Your task to perform on an android device: turn notification dots on Image 0: 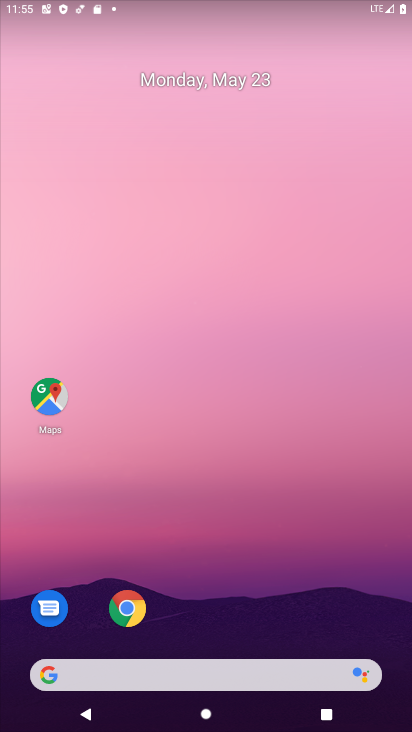
Step 0: press home button
Your task to perform on an android device: turn notification dots on Image 1: 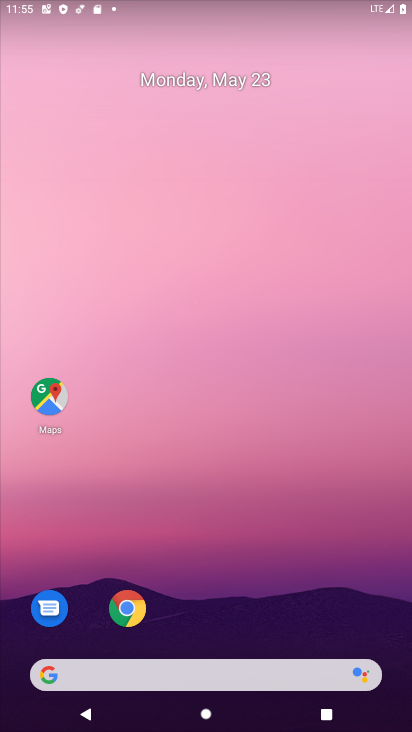
Step 1: drag from (215, 642) to (207, 0)
Your task to perform on an android device: turn notification dots on Image 2: 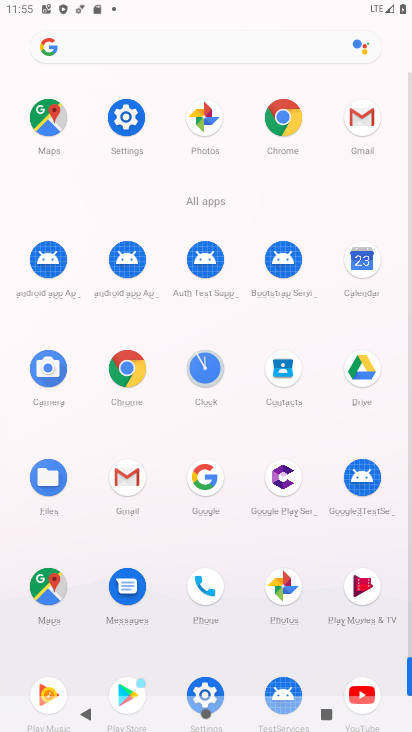
Step 2: click (121, 109)
Your task to perform on an android device: turn notification dots on Image 3: 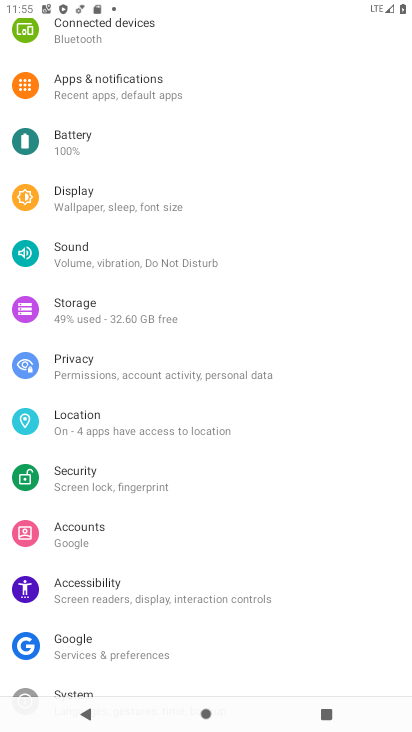
Step 3: click (178, 75)
Your task to perform on an android device: turn notification dots on Image 4: 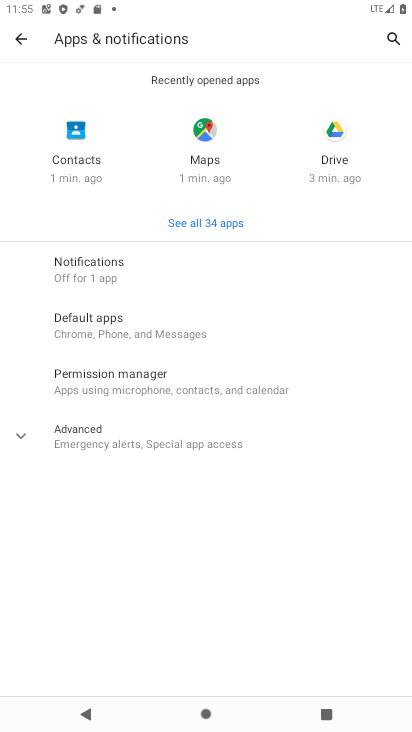
Step 4: click (138, 267)
Your task to perform on an android device: turn notification dots on Image 5: 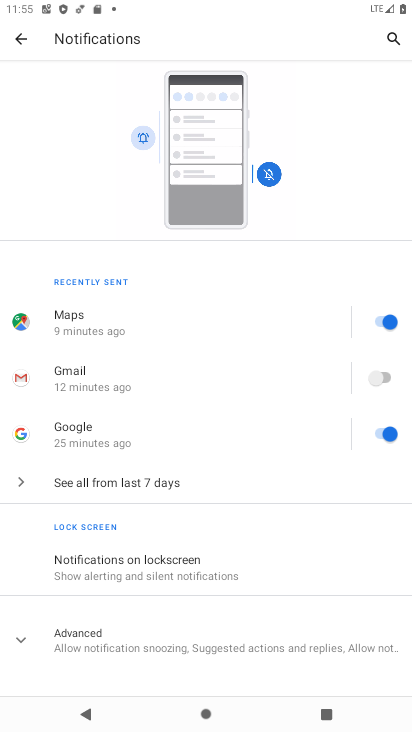
Step 5: click (46, 635)
Your task to perform on an android device: turn notification dots on Image 6: 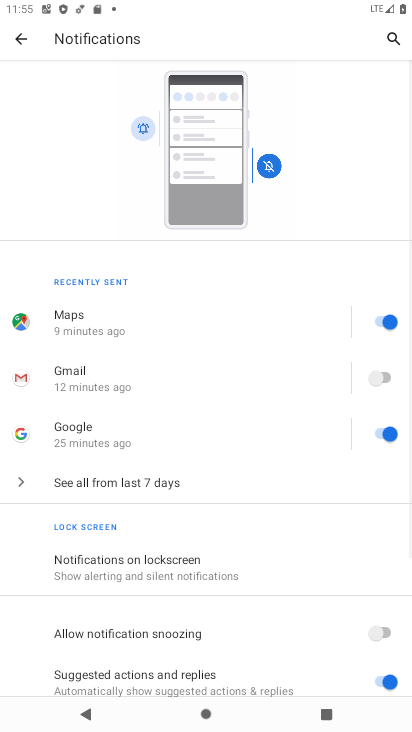
Step 6: task complete